Your task to perform on an android device: make emails show in primary in the gmail app Image 0: 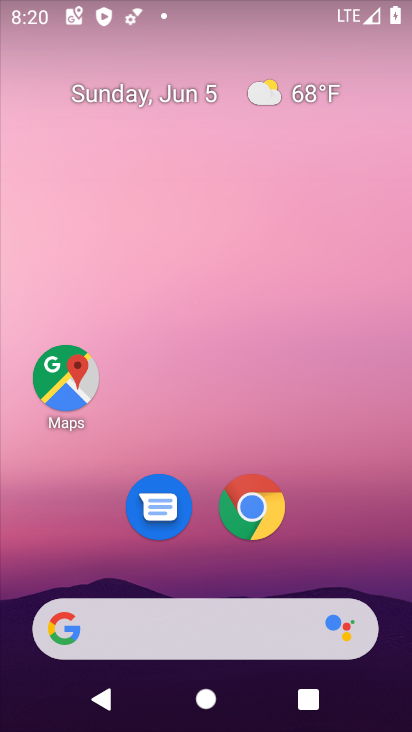
Step 0: drag from (213, 560) to (233, 13)
Your task to perform on an android device: make emails show in primary in the gmail app Image 1: 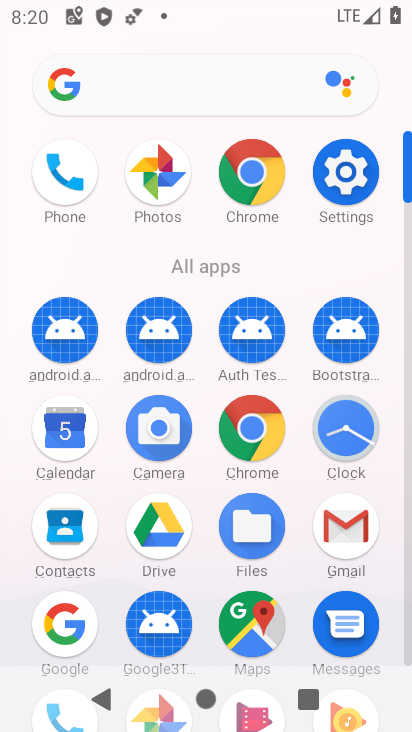
Step 1: click (327, 532)
Your task to perform on an android device: make emails show in primary in the gmail app Image 2: 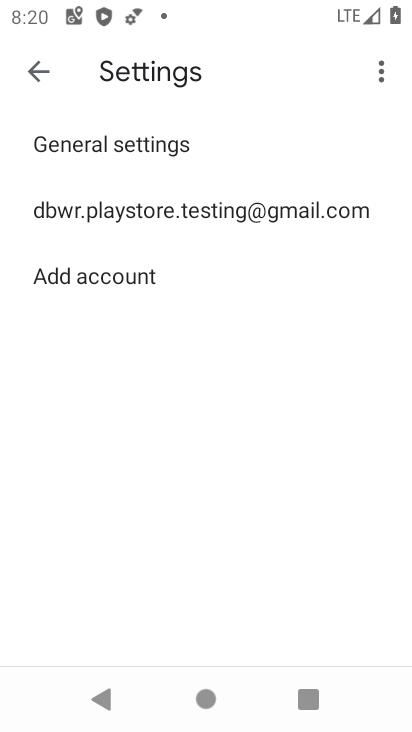
Step 2: click (160, 215)
Your task to perform on an android device: make emails show in primary in the gmail app Image 3: 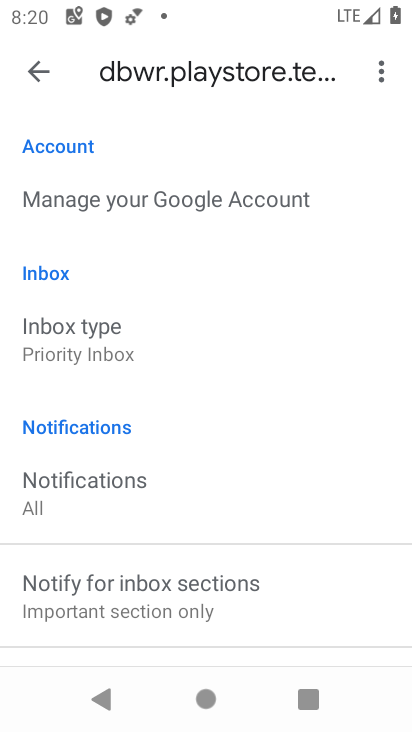
Step 3: click (107, 335)
Your task to perform on an android device: make emails show in primary in the gmail app Image 4: 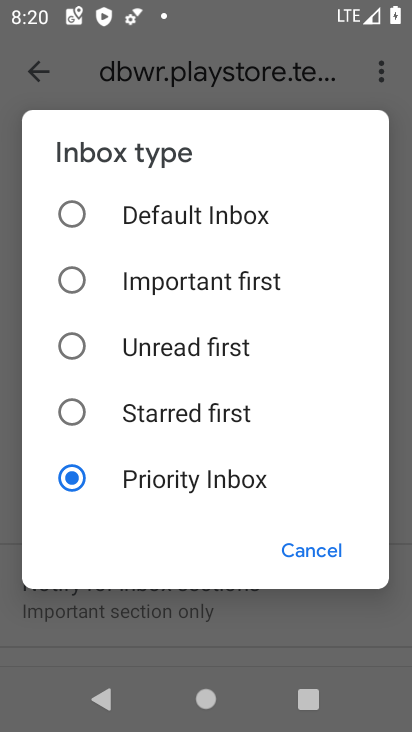
Step 4: click (123, 214)
Your task to perform on an android device: make emails show in primary in the gmail app Image 5: 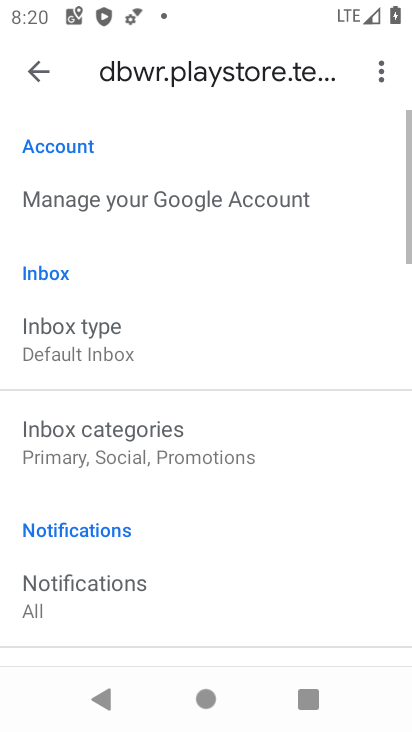
Step 5: click (118, 456)
Your task to perform on an android device: make emails show in primary in the gmail app Image 6: 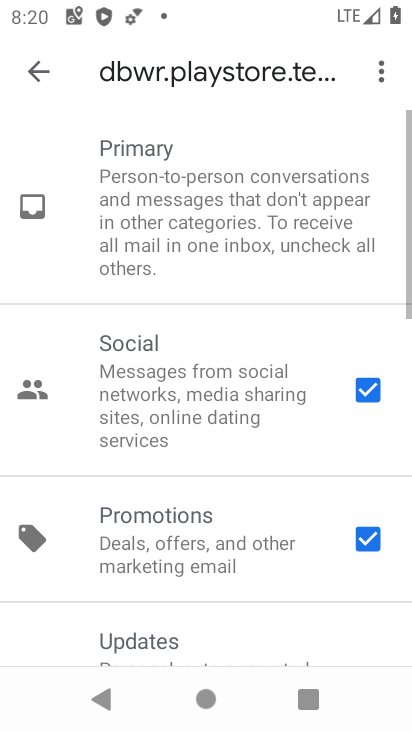
Step 6: click (333, 407)
Your task to perform on an android device: make emails show in primary in the gmail app Image 7: 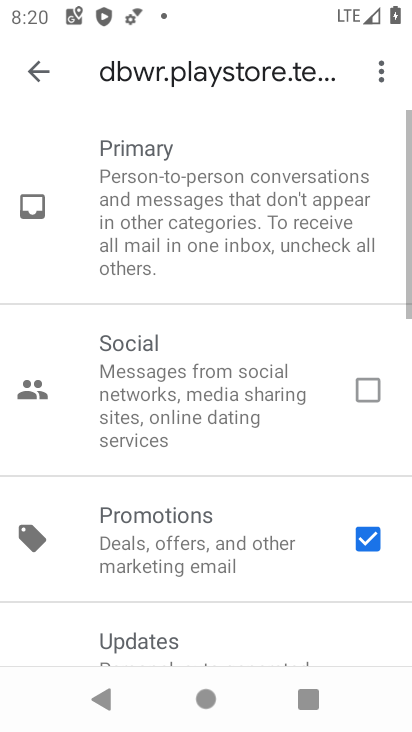
Step 7: click (328, 536)
Your task to perform on an android device: make emails show in primary in the gmail app Image 8: 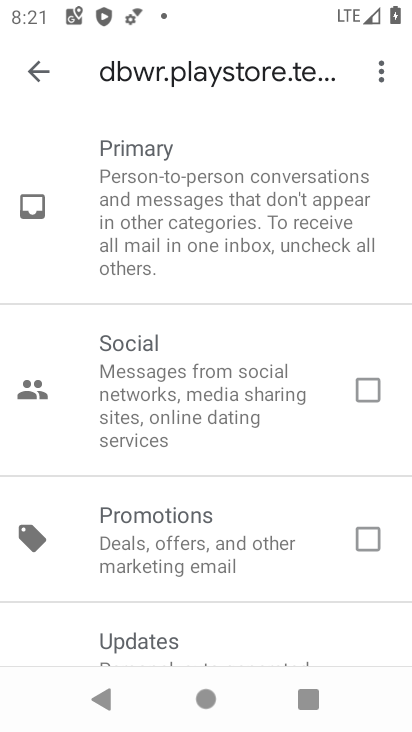
Step 8: task complete